Your task to perform on an android device: read, delete, or share a saved page in the chrome app Image 0: 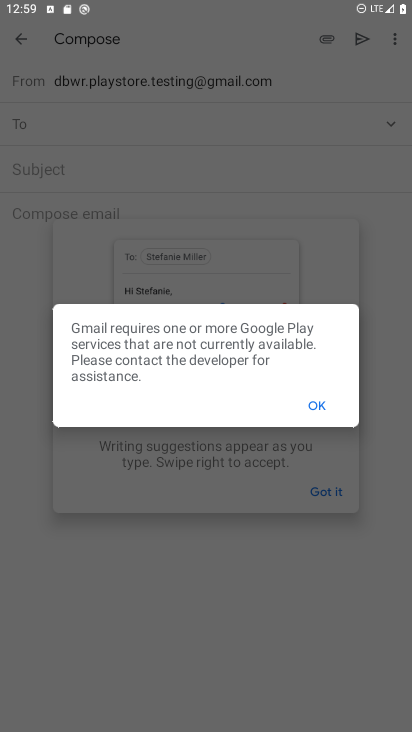
Step 0: press home button
Your task to perform on an android device: read, delete, or share a saved page in the chrome app Image 1: 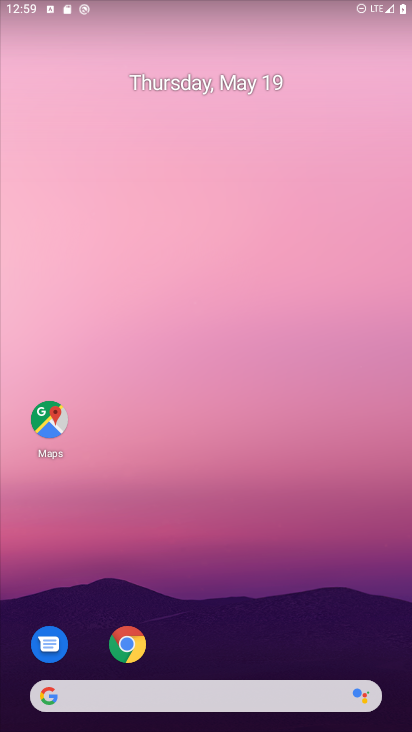
Step 1: drag from (272, 624) to (289, 80)
Your task to perform on an android device: read, delete, or share a saved page in the chrome app Image 2: 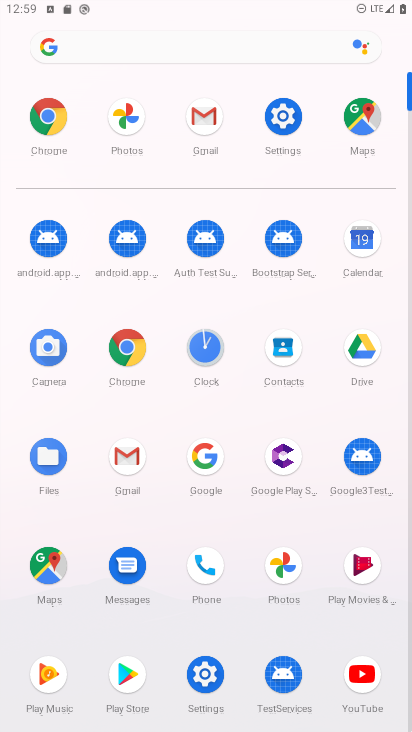
Step 2: click (137, 362)
Your task to perform on an android device: read, delete, or share a saved page in the chrome app Image 3: 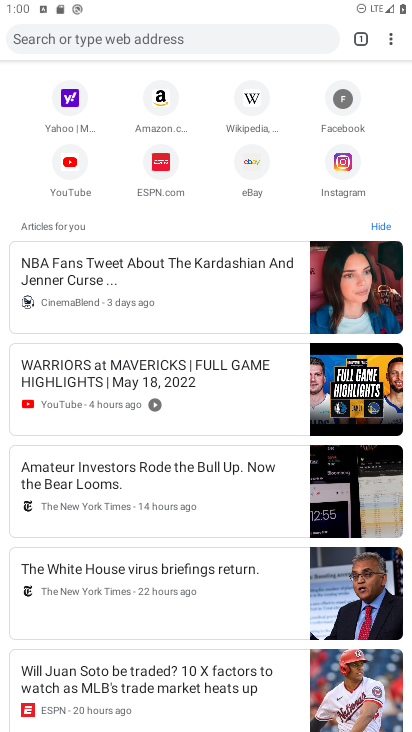
Step 3: task complete